Your task to perform on an android device: install app "Google Chrome" Image 0: 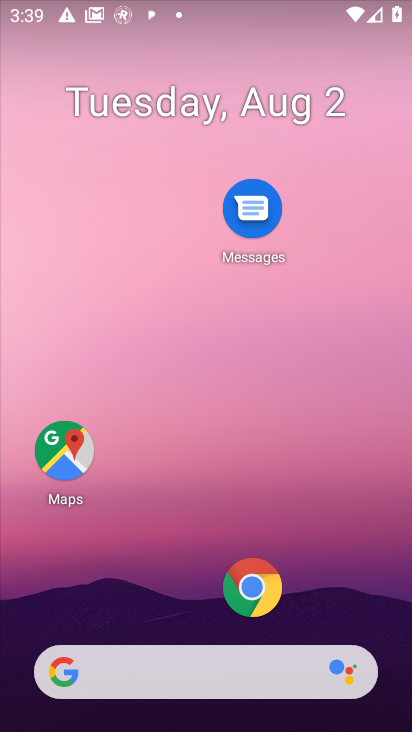
Step 0: drag from (143, 591) to (170, 205)
Your task to perform on an android device: install app "Google Chrome" Image 1: 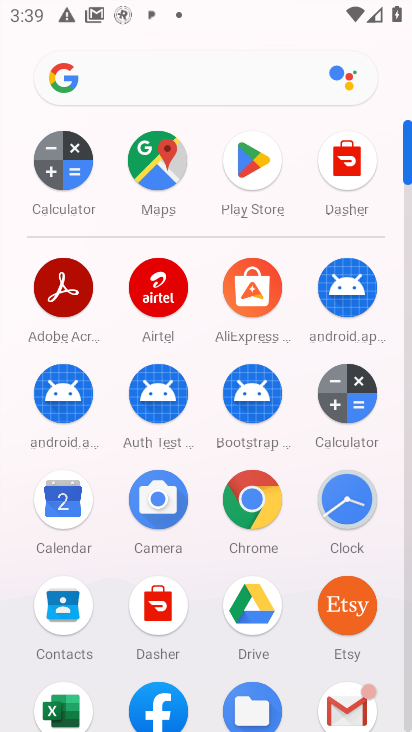
Step 1: click (240, 178)
Your task to perform on an android device: install app "Google Chrome" Image 2: 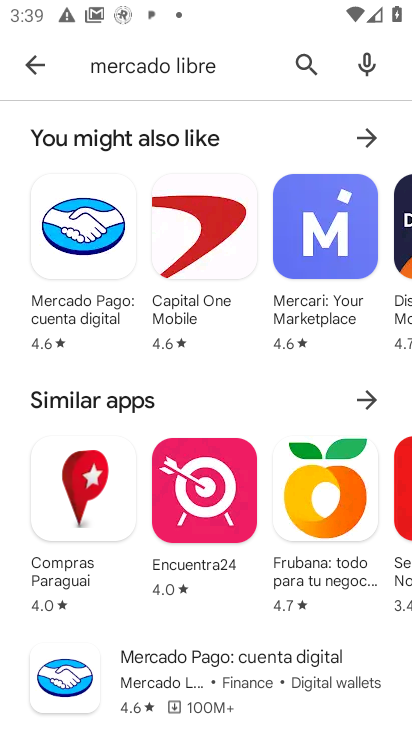
Step 2: click (309, 66)
Your task to perform on an android device: install app "Google Chrome" Image 3: 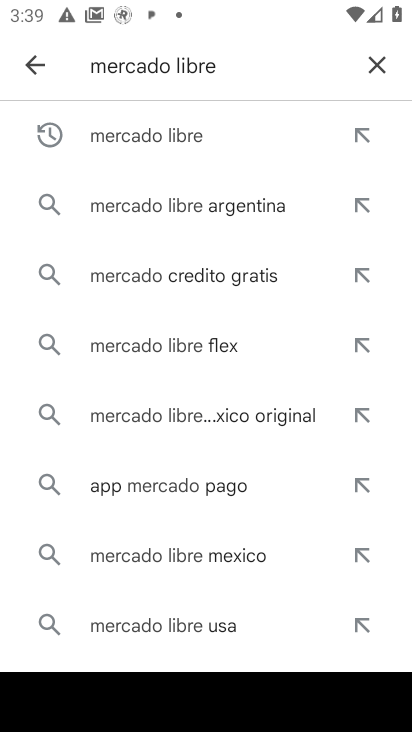
Step 3: click (382, 64)
Your task to perform on an android device: install app "Google Chrome" Image 4: 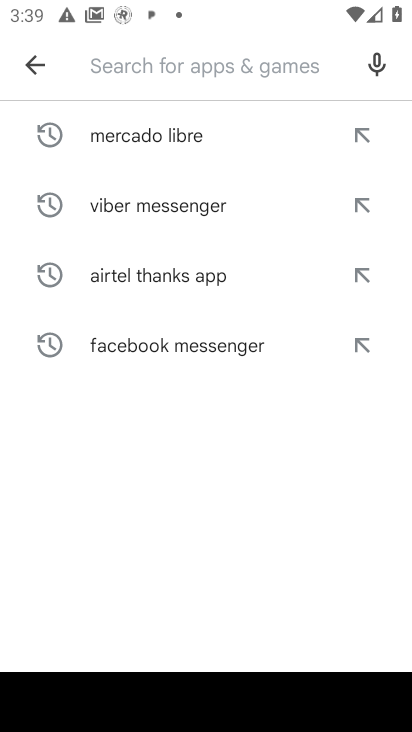
Step 4: type "Google Chrome"
Your task to perform on an android device: install app "Google Chrome" Image 5: 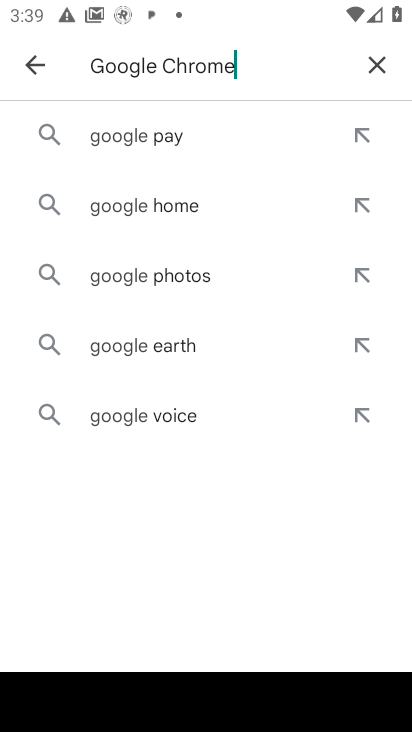
Step 5: type ""
Your task to perform on an android device: install app "Google Chrome" Image 6: 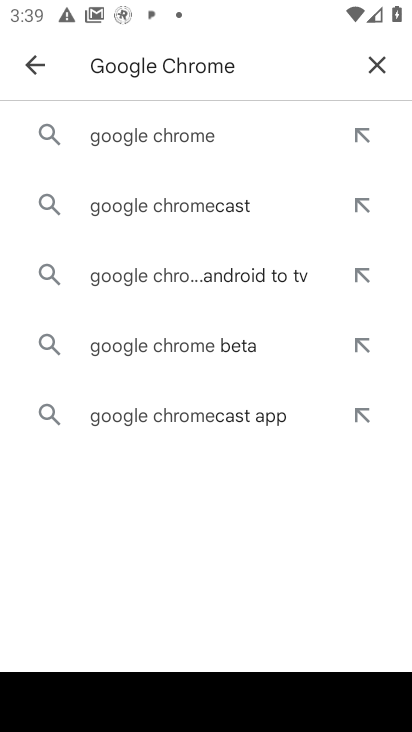
Step 6: click (256, 143)
Your task to perform on an android device: install app "Google Chrome" Image 7: 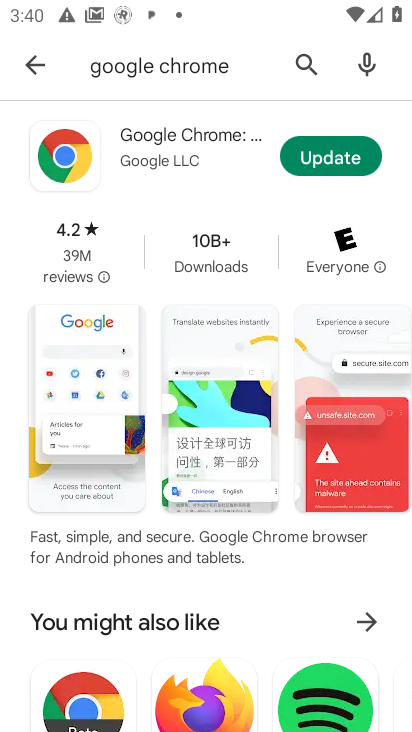
Step 7: click (184, 139)
Your task to perform on an android device: install app "Google Chrome" Image 8: 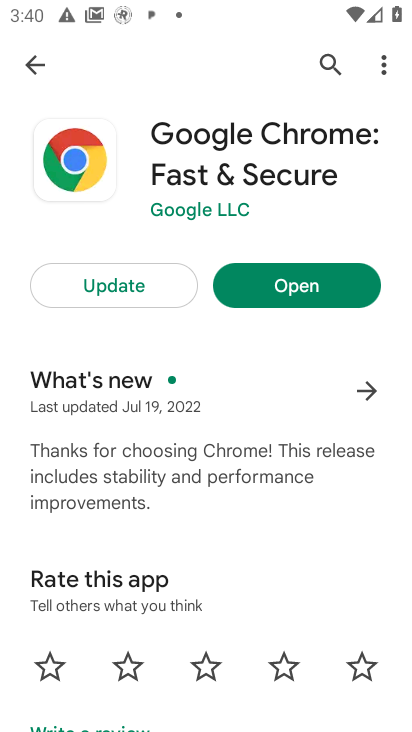
Step 8: task complete